Your task to perform on an android device: open wifi settings Image 0: 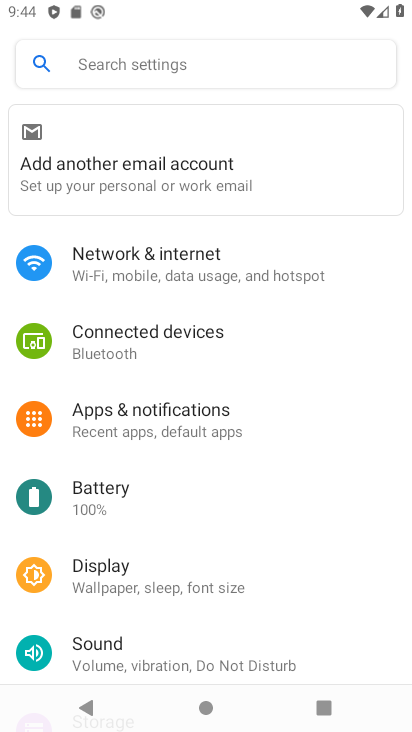
Step 0: press home button
Your task to perform on an android device: open wifi settings Image 1: 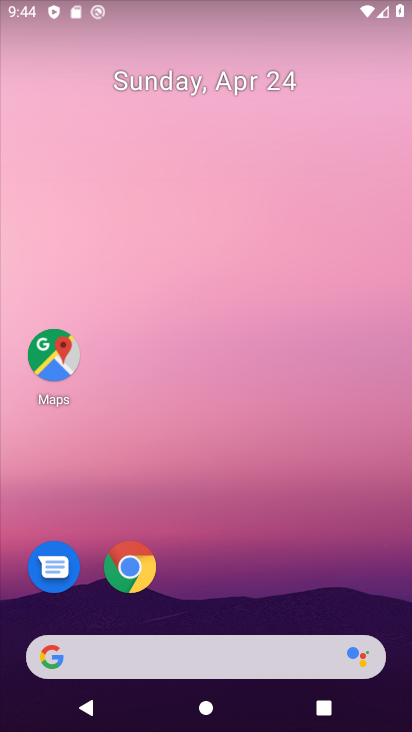
Step 1: drag from (97, 506) to (313, 212)
Your task to perform on an android device: open wifi settings Image 2: 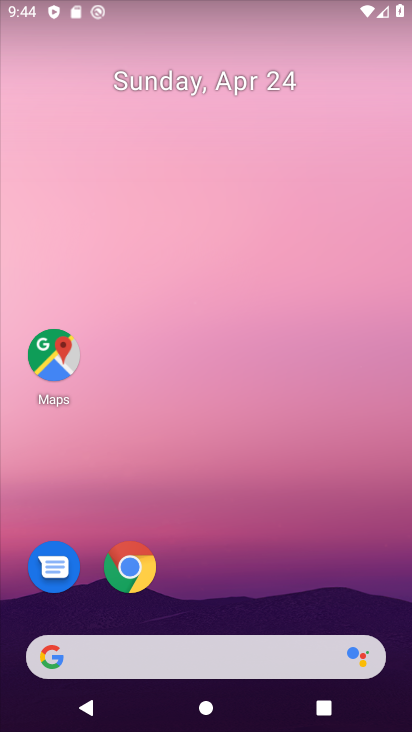
Step 2: drag from (0, 465) to (349, 214)
Your task to perform on an android device: open wifi settings Image 3: 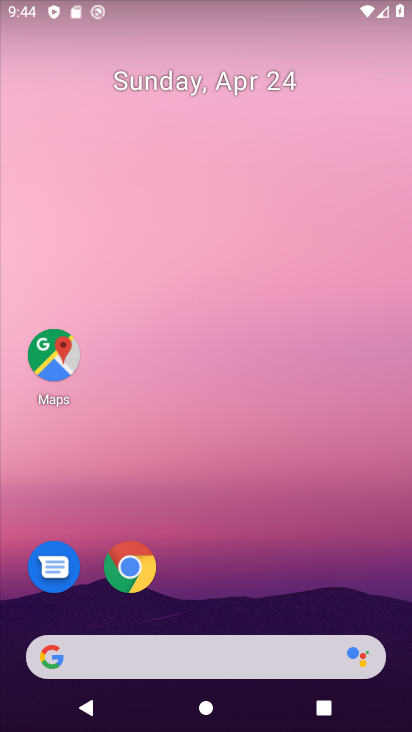
Step 3: drag from (0, 721) to (309, 242)
Your task to perform on an android device: open wifi settings Image 4: 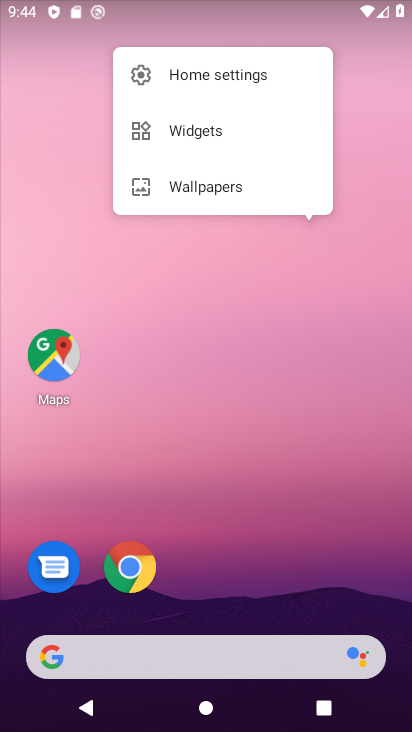
Step 4: click (255, 405)
Your task to perform on an android device: open wifi settings Image 5: 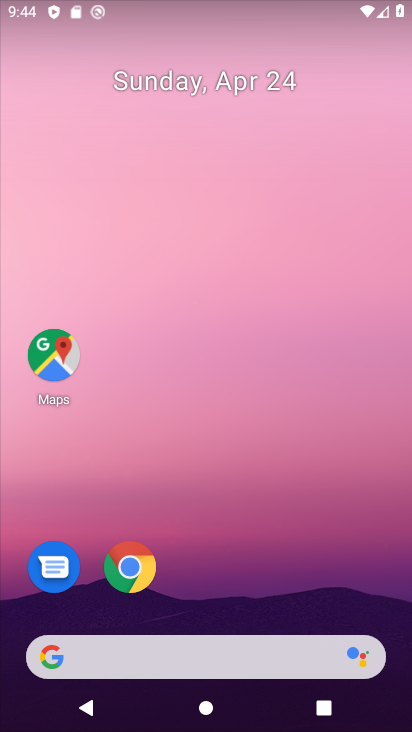
Step 5: drag from (63, 644) to (235, 267)
Your task to perform on an android device: open wifi settings Image 6: 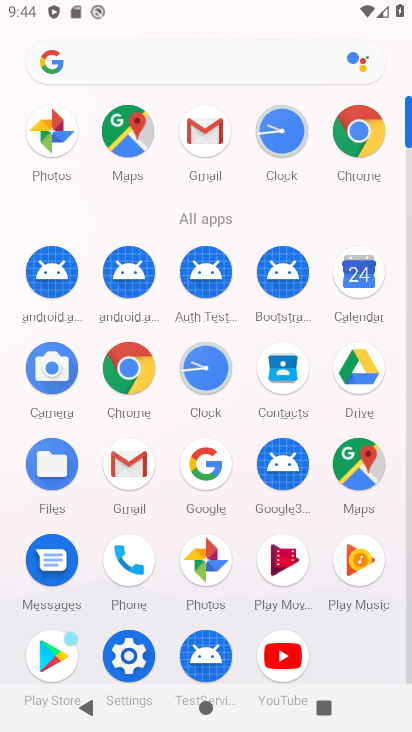
Step 6: click (141, 671)
Your task to perform on an android device: open wifi settings Image 7: 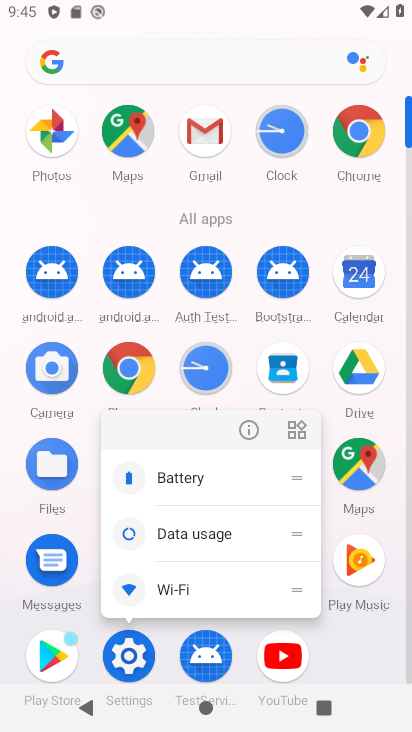
Step 7: click (251, 426)
Your task to perform on an android device: open wifi settings Image 8: 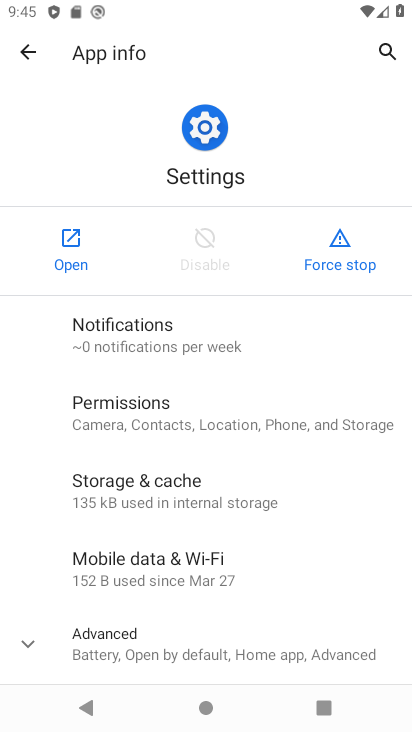
Step 8: click (70, 251)
Your task to perform on an android device: open wifi settings Image 9: 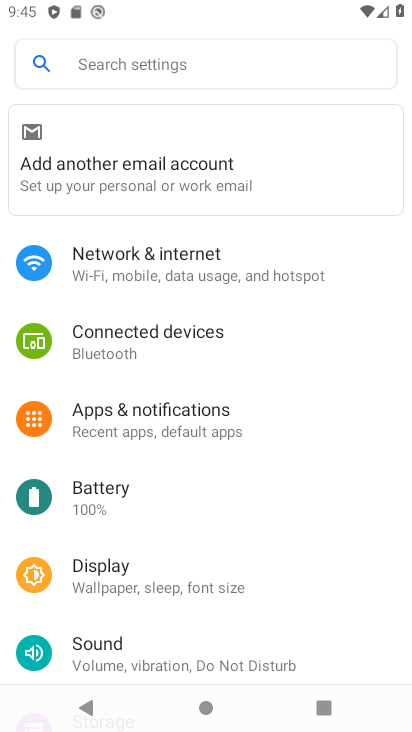
Step 9: click (69, 291)
Your task to perform on an android device: open wifi settings Image 10: 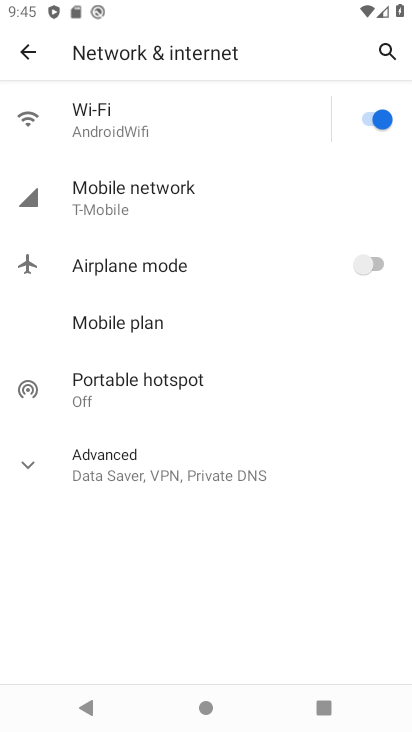
Step 10: click (144, 132)
Your task to perform on an android device: open wifi settings Image 11: 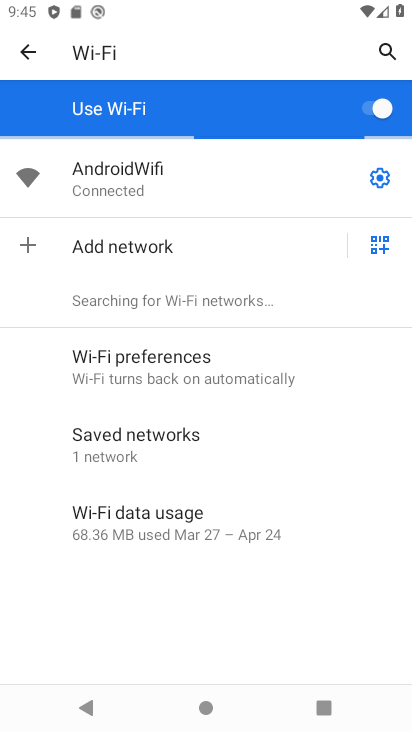
Step 11: click (383, 174)
Your task to perform on an android device: open wifi settings Image 12: 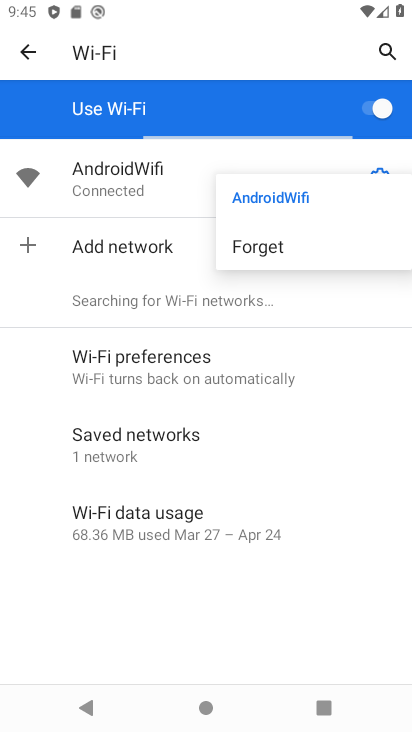
Step 12: click (270, 632)
Your task to perform on an android device: open wifi settings Image 13: 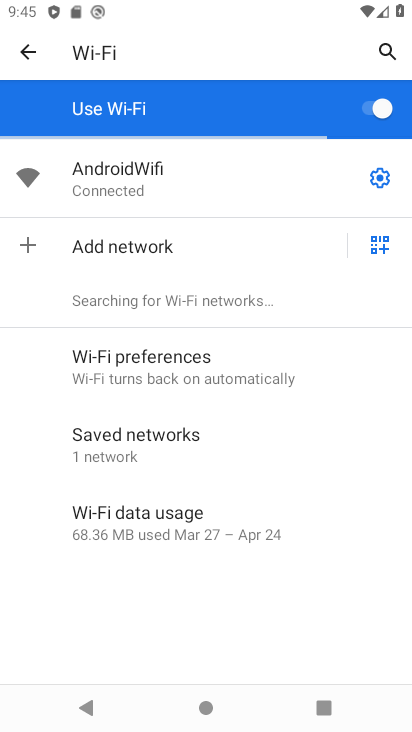
Step 13: click (374, 174)
Your task to perform on an android device: open wifi settings Image 14: 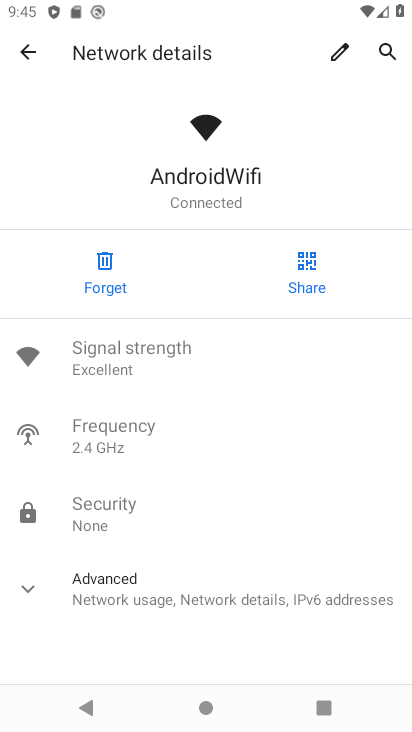
Step 14: task complete